Your task to perform on an android device: Go to internet settings Image 0: 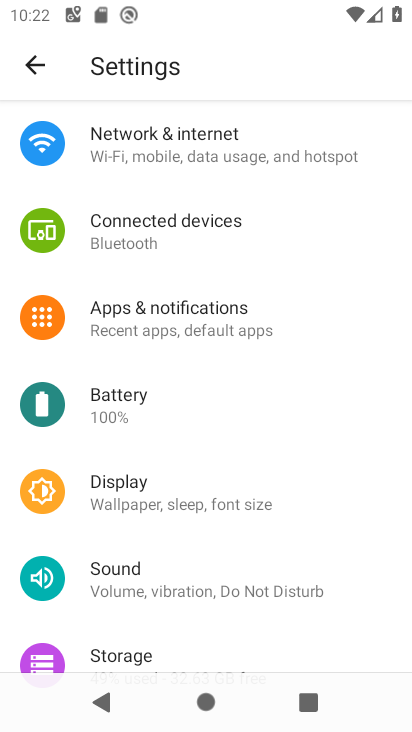
Step 0: click (231, 158)
Your task to perform on an android device: Go to internet settings Image 1: 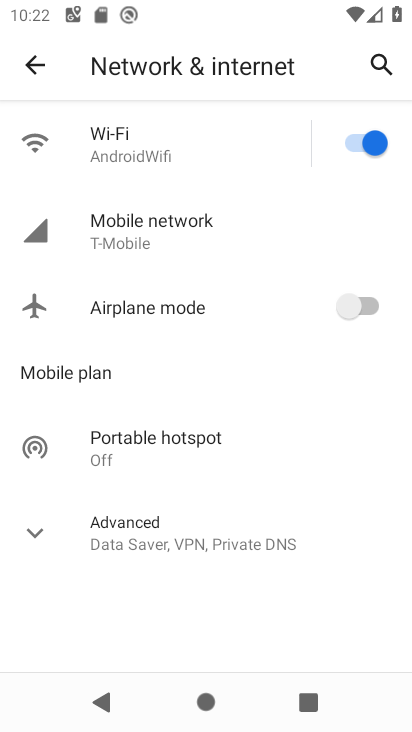
Step 1: task complete